Your task to perform on an android device: turn on location history Image 0: 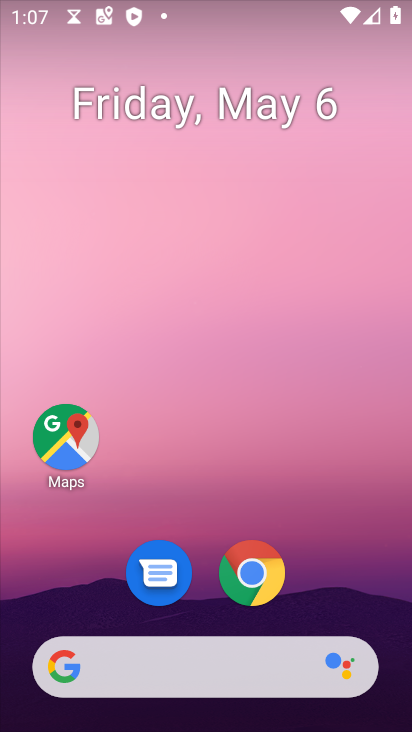
Step 0: drag from (322, 563) to (344, 332)
Your task to perform on an android device: turn on location history Image 1: 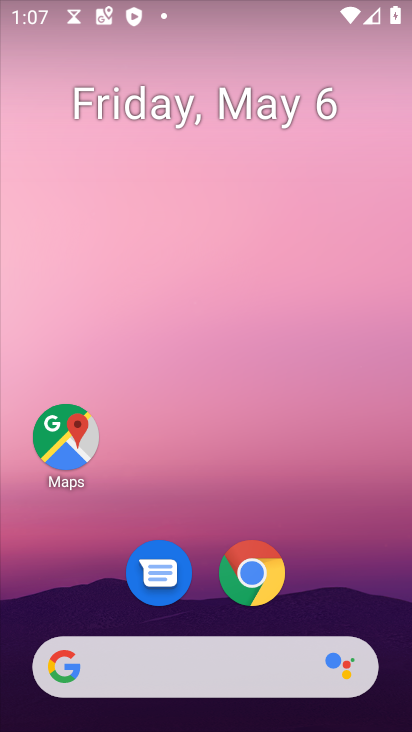
Step 1: drag from (337, 583) to (367, 253)
Your task to perform on an android device: turn on location history Image 2: 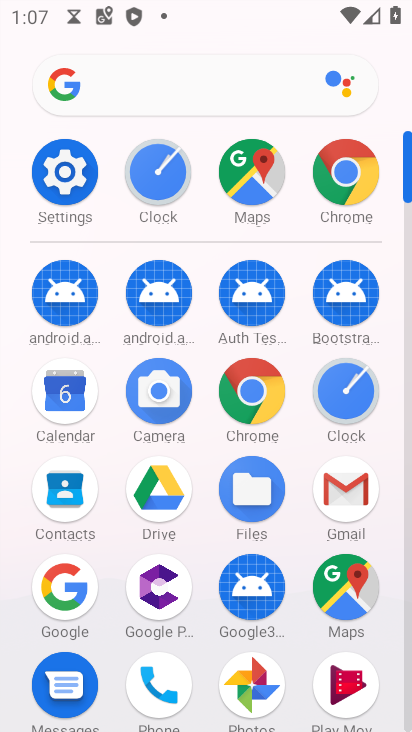
Step 2: click (74, 153)
Your task to perform on an android device: turn on location history Image 3: 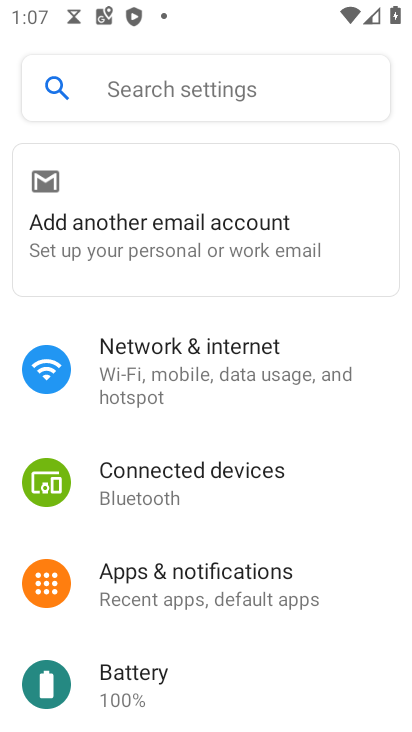
Step 3: drag from (198, 633) to (181, 251)
Your task to perform on an android device: turn on location history Image 4: 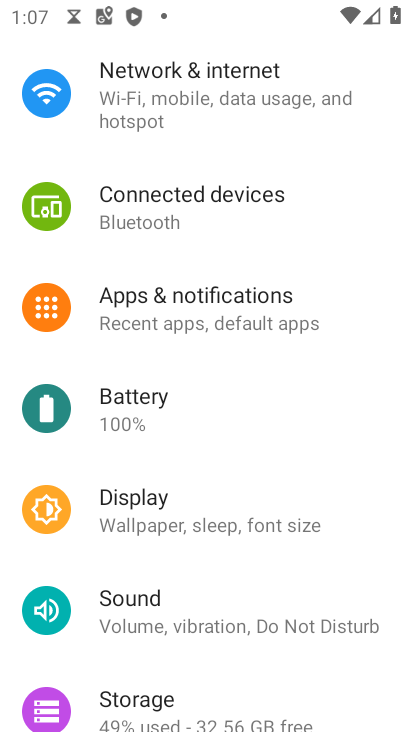
Step 4: drag from (208, 660) to (265, 312)
Your task to perform on an android device: turn on location history Image 5: 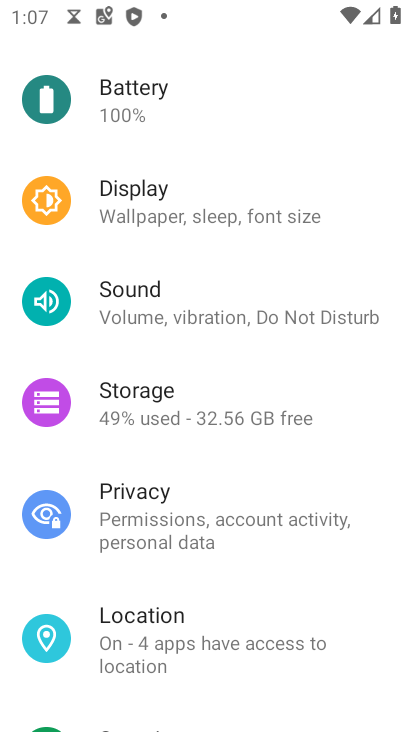
Step 5: click (161, 652)
Your task to perform on an android device: turn on location history Image 6: 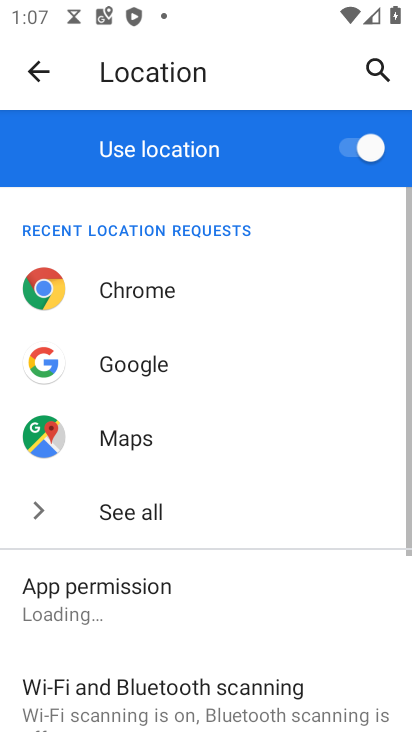
Step 6: drag from (176, 628) to (249, 293)
Your task to perform on an android device: turn on location history Image 7: 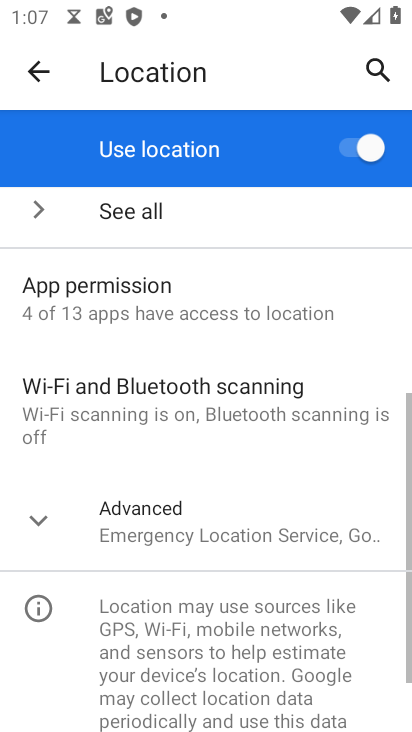
Step 7: click (184, 541)
Your task to perform on an android device: turn on location history Image 8: 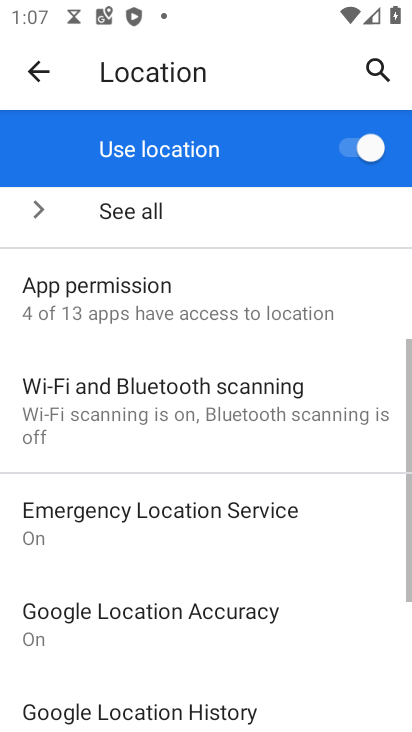
Step 8: drag from (239, 646) to (263, 388)
Your task to perform on an android device: turn on location history Image 9: 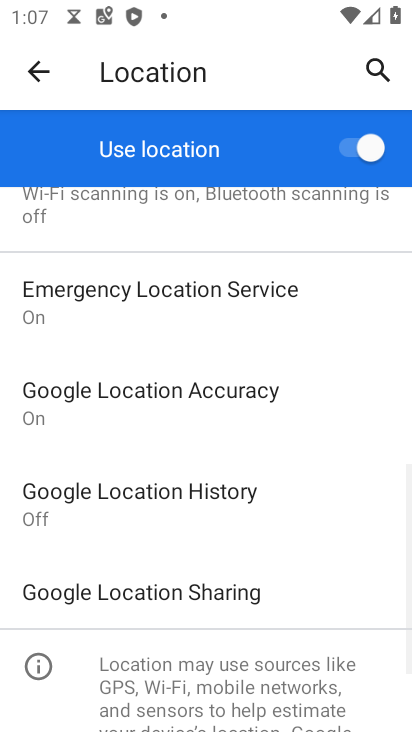
Step 9: click (159, 500)
Your task to perform on an android device: turn on location history Image 10: 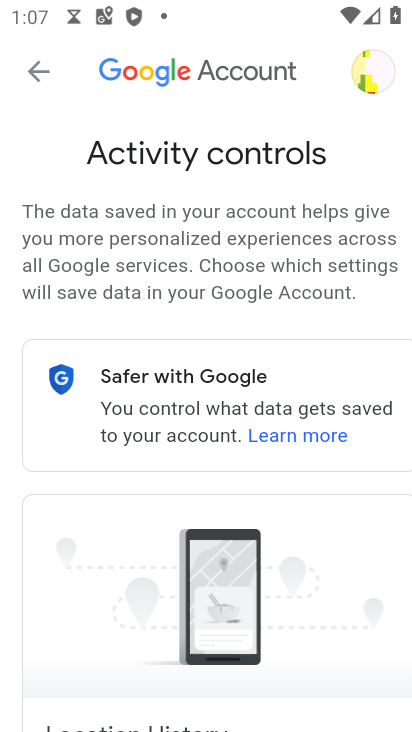
Step 10: drag from (261, 672) to (359, 219)
Your task to perform on an android device: turn on location history Image 11: 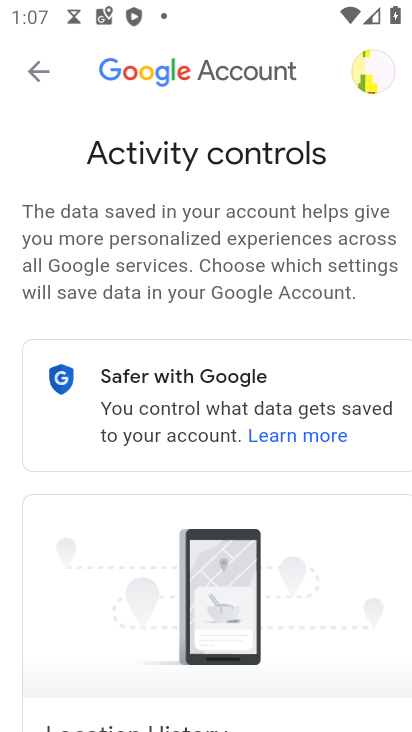
Step 11: drag from (326, 643) to (314, 297)
Your task to perform on an android device: turn on location history Image 12: 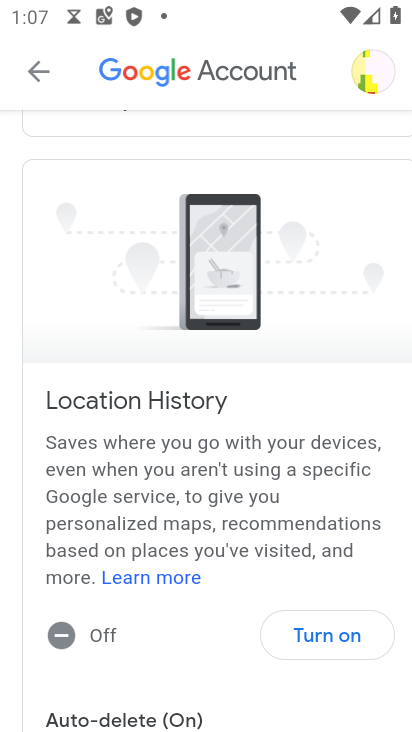
Step 12: click (294, 641)
Your task to perform on an android device: turn on location history Image 13: 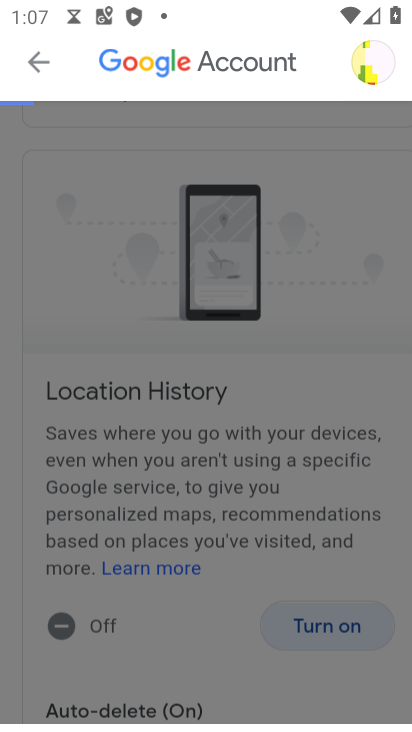
Step 13: click (294, 641)
Your task to perform on an android device: turn on location history Image 14: 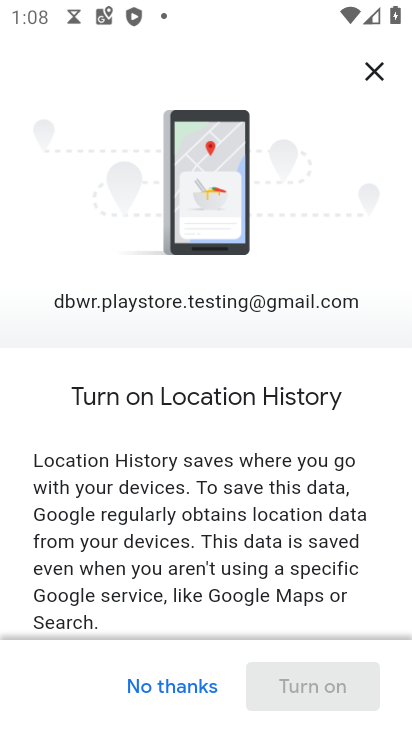
Step 14: task complete